Your task to perform on an android device: Open settings Image 0: 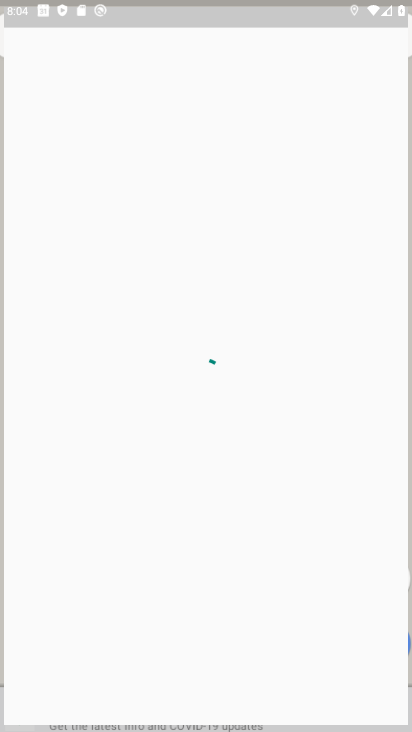
Step 0: press home button
Your task to perform on an android device: Open settings Image 1: 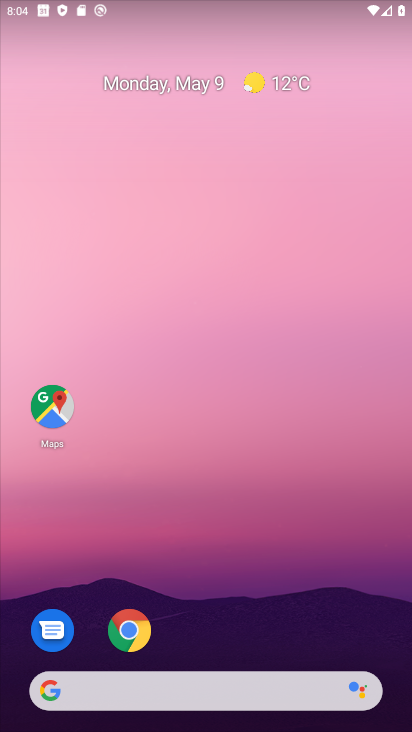
Step 1: drag from (163, 665) to (235, 138)
Your task to perform on an android device: Open settings Image 2: 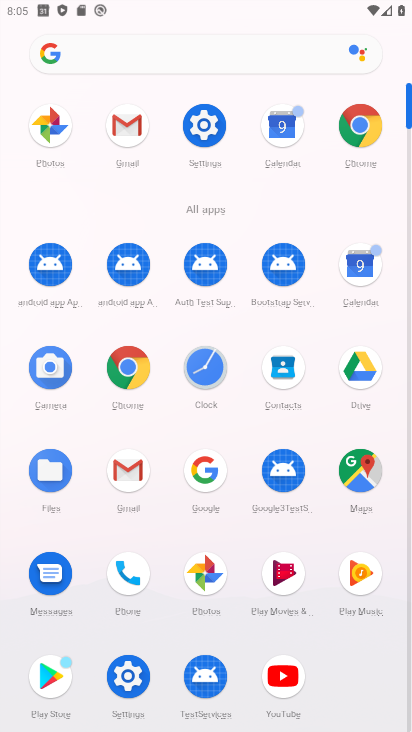
Step 2: click (127, 675)
Your task to perform on an android device: Open settings Image 3: 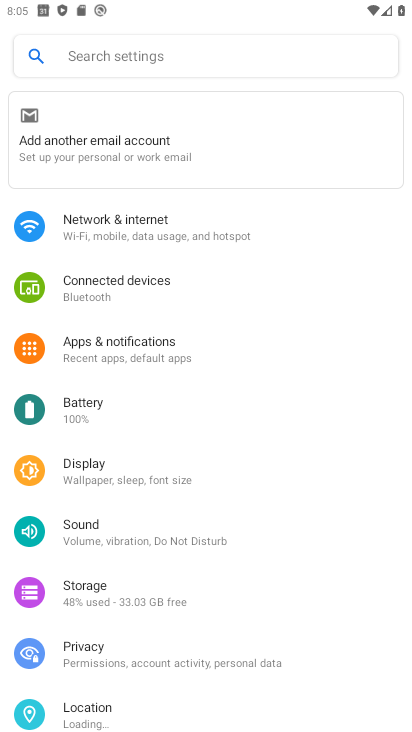
Step 3: task complete